Your task to perform on an android device: install app "McDonald's" Image 0: 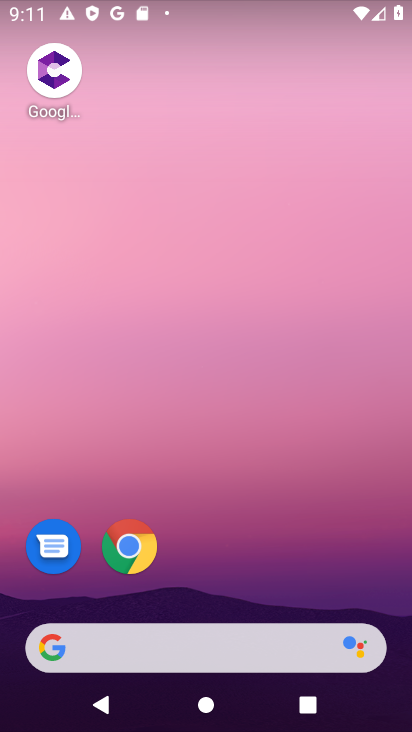
Step 0: drag from (204, 524) to (160, 141)
Your task to perform on an android device: install app "McDonald's" Image 1: 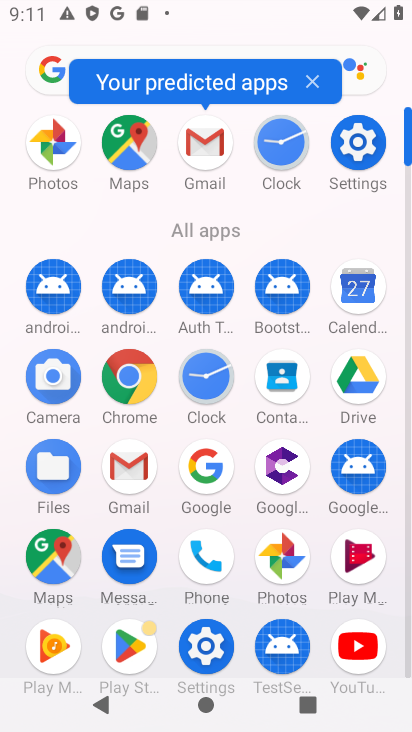
Step 1: click (133, 657)
Your task to perform on an android device: install app "McDonald's" Image 2: 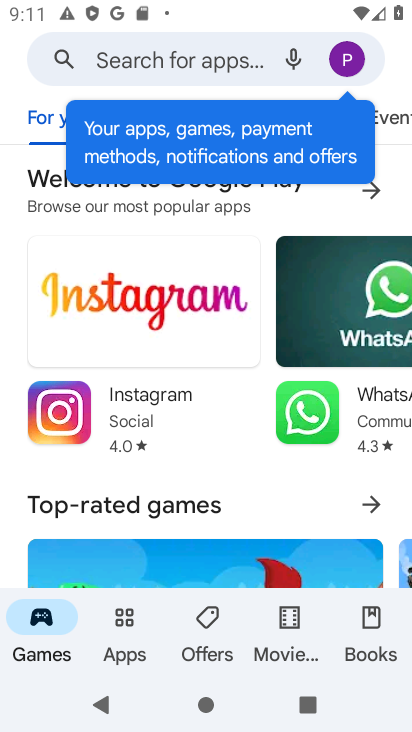
Step 2: click (244, 54)
Your task to perform on an android device: install app "McDonald's" Image 3: 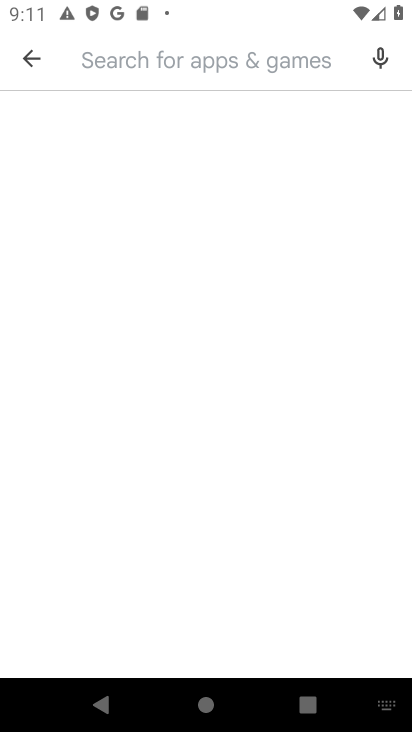
Step 3: type "McDonald's"
Your task to perform on an android device: install app "McDonald's" Image 4: 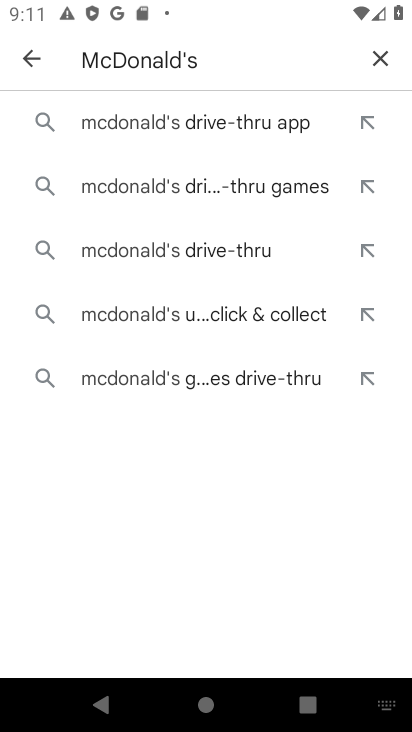
Step 4: click (221, 68)
Your task to perform on an android device: install app "McDonald's" Image 5: 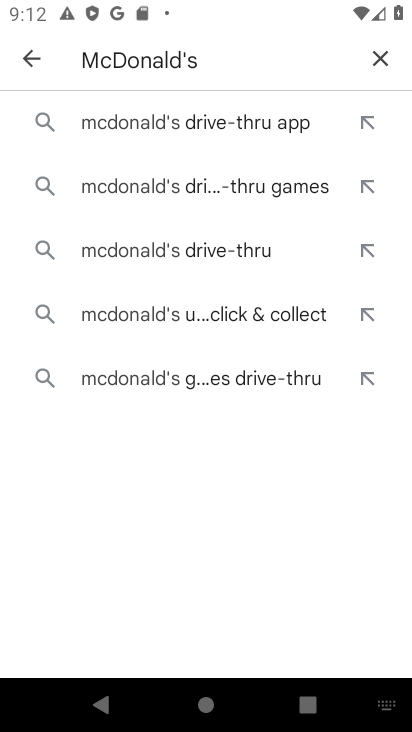
Step 5: click (132, 118)
Your task to perform on an android device: install app "McDonald's" Image 6: 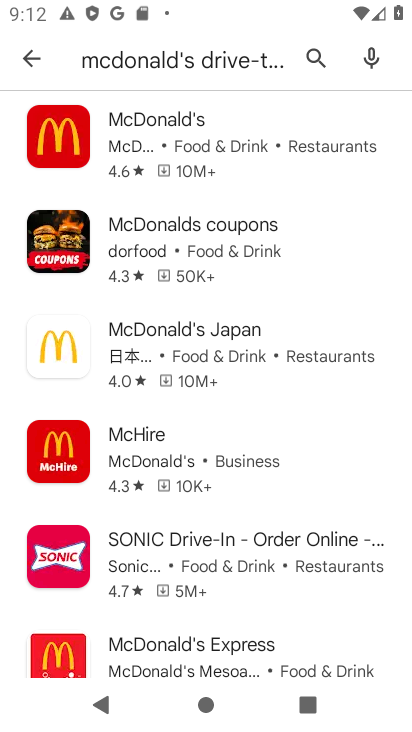
Step 6: click (48, 124)
Your task to perform on an android device: install app "McDonald's" Image 7: 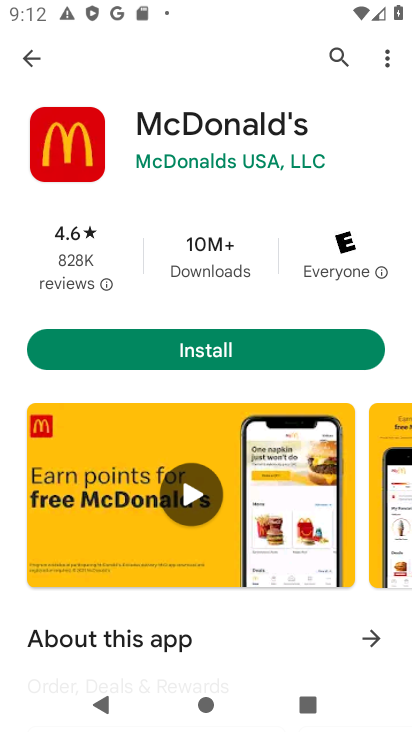
Step 7: click (145, 346)
Your task to perform on an android device: install app "McDonald's" Image 8: 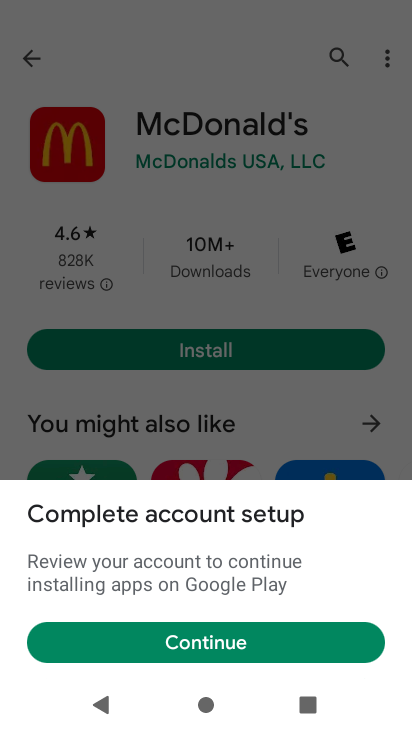
Step 8: click (146, 629)
Your task to perform on an android device: install app "McDonald's" Image 9: 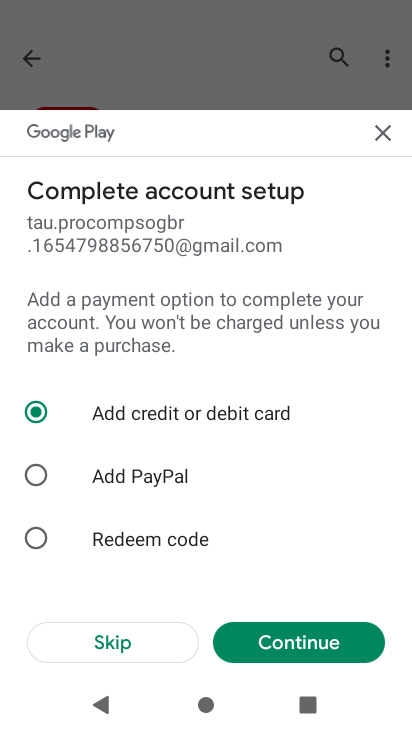
Step 9: click (124, 644)
Your task to perform on an android device: install app "McDonald's" Image 10: 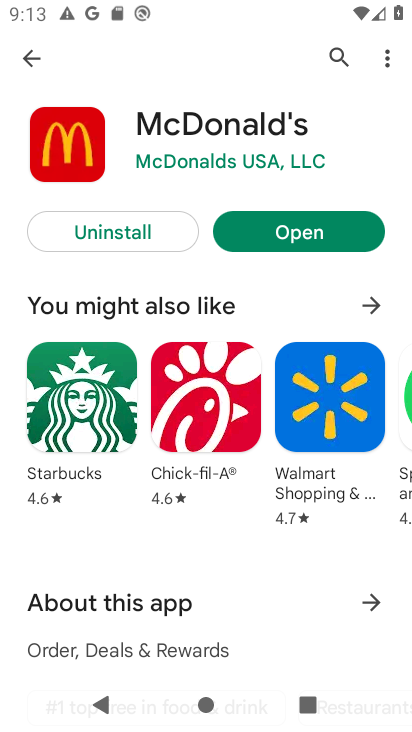
Step 10: task complete